Your task to perform on an android device: visit the assistant section in the google photos Image 0: 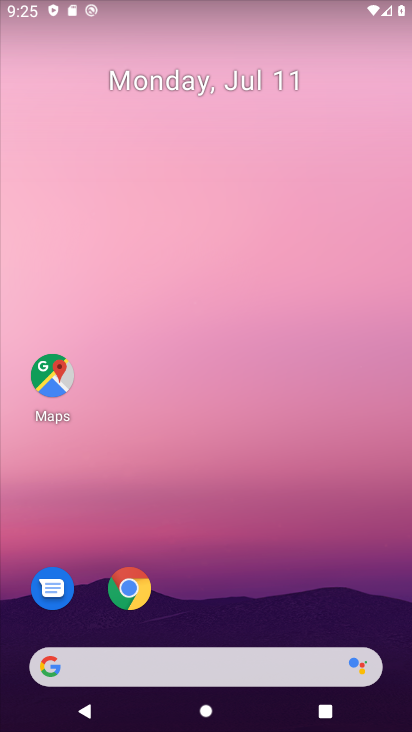
Step 0: drag from (214, 556) to (194, 3)
Your task to perform on an android device: visit the assistant section in the google photos Image 1: 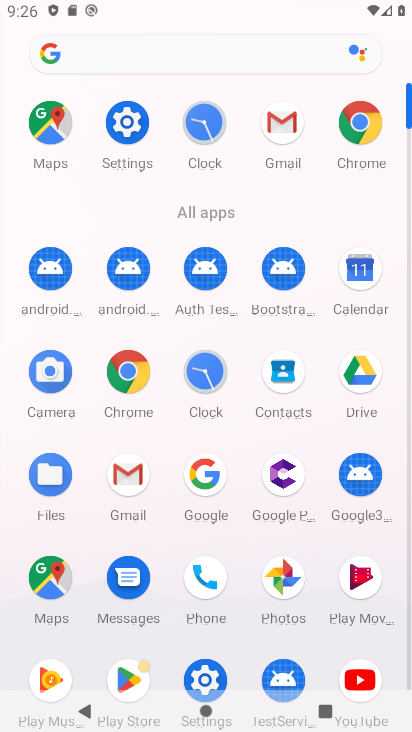
Step 1: click (278, 584)
Your task to perform on an android device: visit the assistant section in the google photos Image 2: 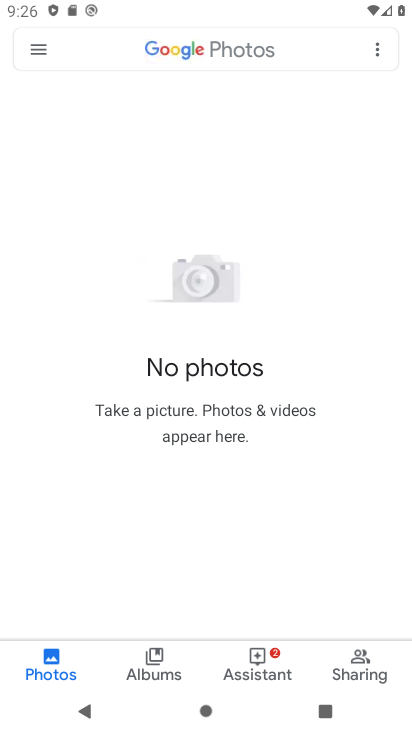
Step 2: click (246, 672)
Your task to perform on an android device: visit the assistant section in the google photos Image 3: 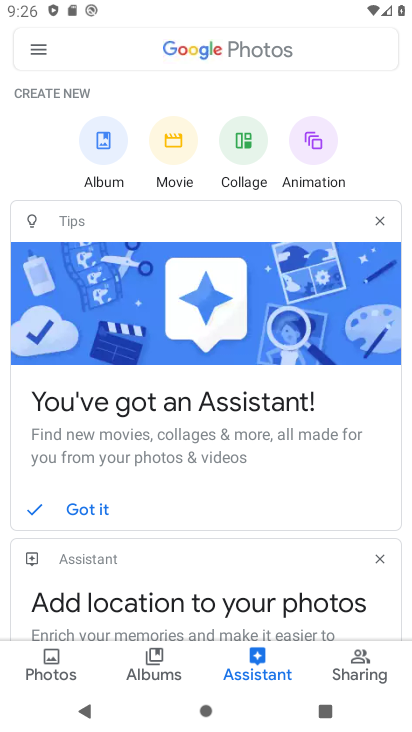
Step 3: task complete